Your task to perform on an android device: Find coffee shops on Maps Image 0: 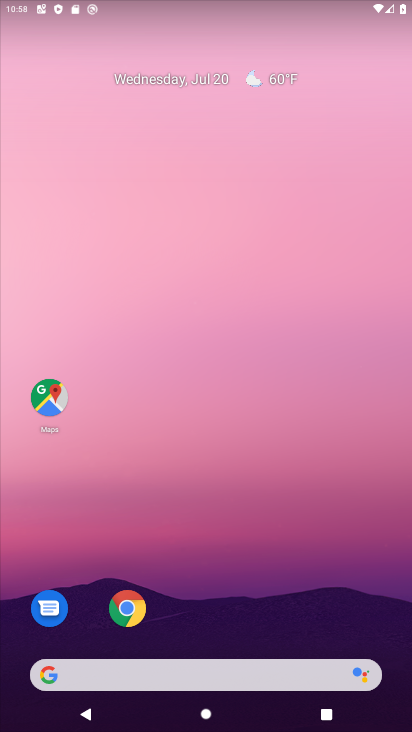
Step 0: click (45, 410)
Your task to perform on an android device: Find coffee shops on Maps Image 1: 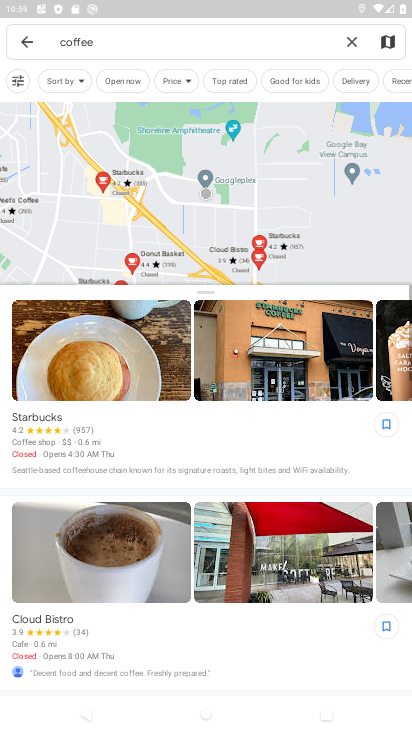
Step 1: click (353, 48)
Your task to perform on an android device: Find coffee shops on Maps Image 2: 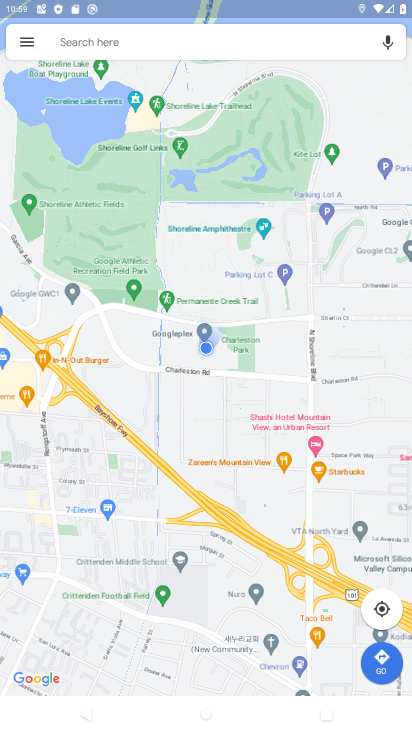
Step 2: click (122, 39)
Your task to perform on an android device: Find coffee shops on Maps Image 3: 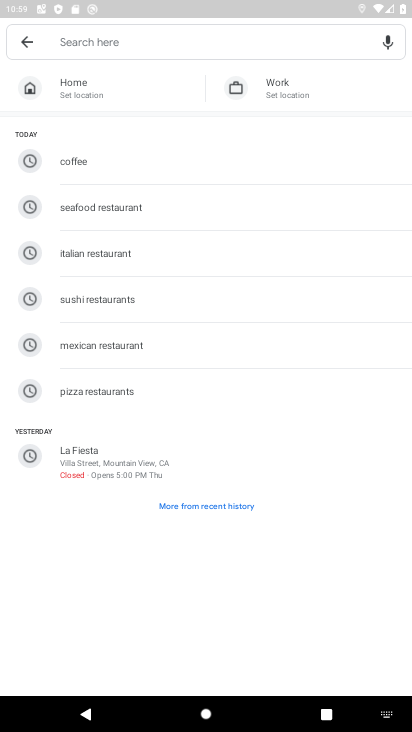
Step 3: type "coffee shops"
Your task to perform on an android device: Find coffee shops on Maps Image 4: 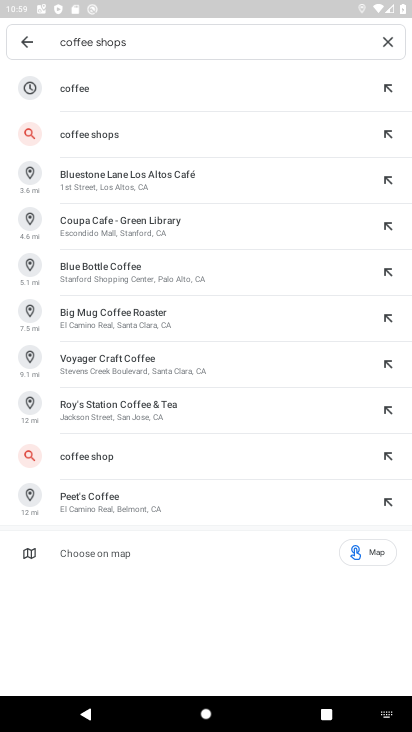
Step 4: click (232, 137)
Your task to perform on an android device: Find coffee shops on Maps Image 5: 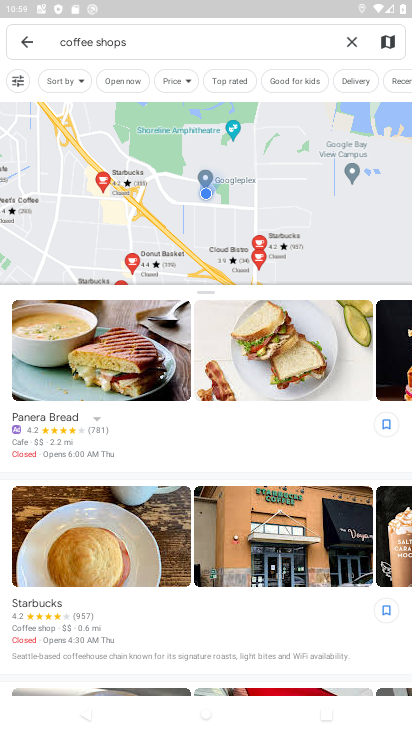
Step 5: task complete